Your task to perform on an android device: Search for a tv stand on Ikea Image 0: 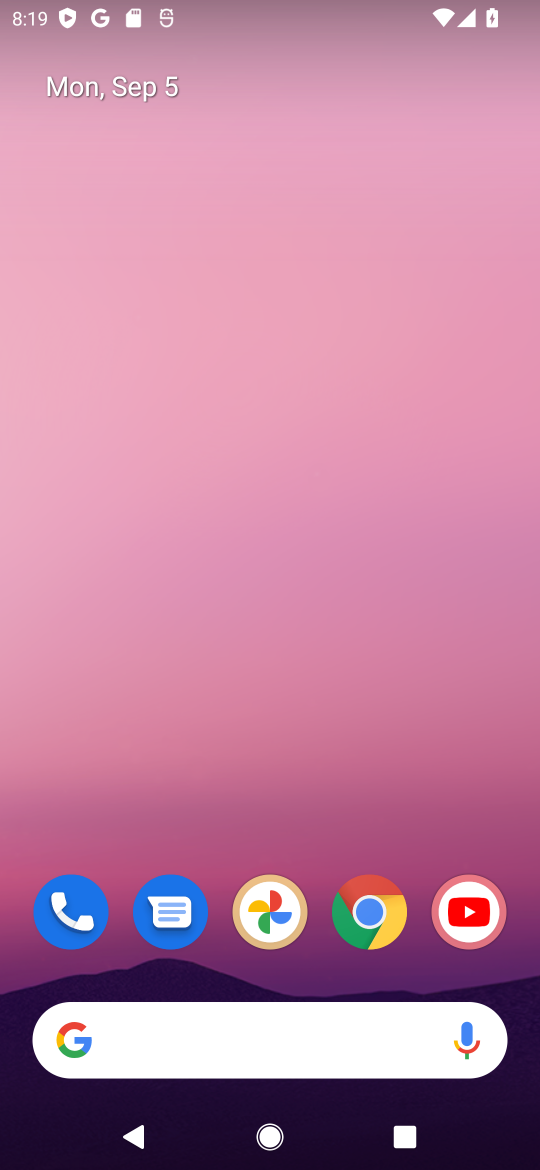
Step 0: click (361, 923)
Your task to perform on an android device: Search for a tv stand on Ikea Image 1: 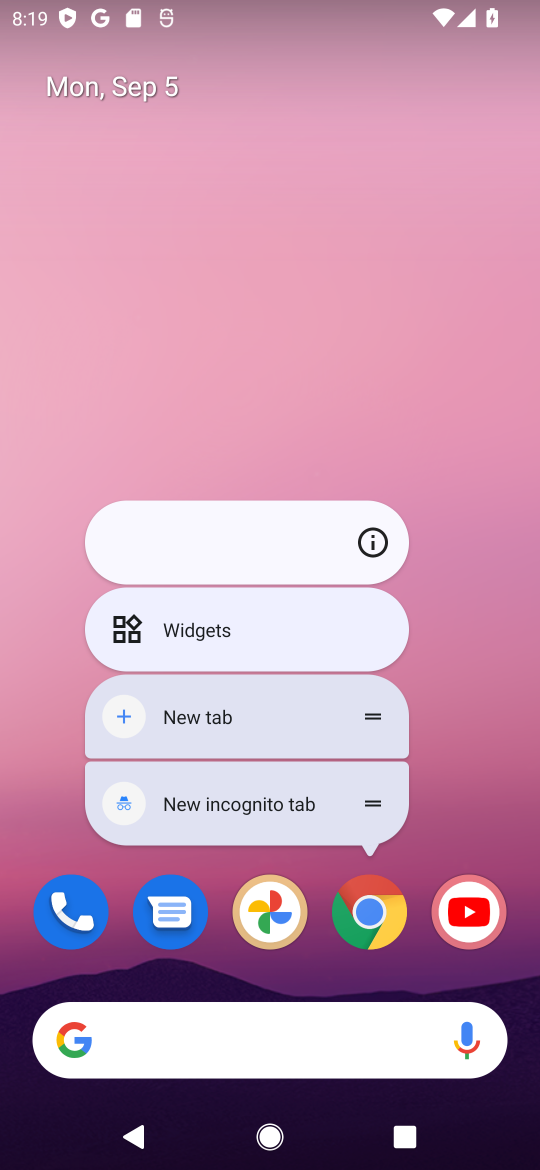
Step 1: click (371, 893)
Your task to perform on an android device: Search for a tv stand on Ikea Image 2: 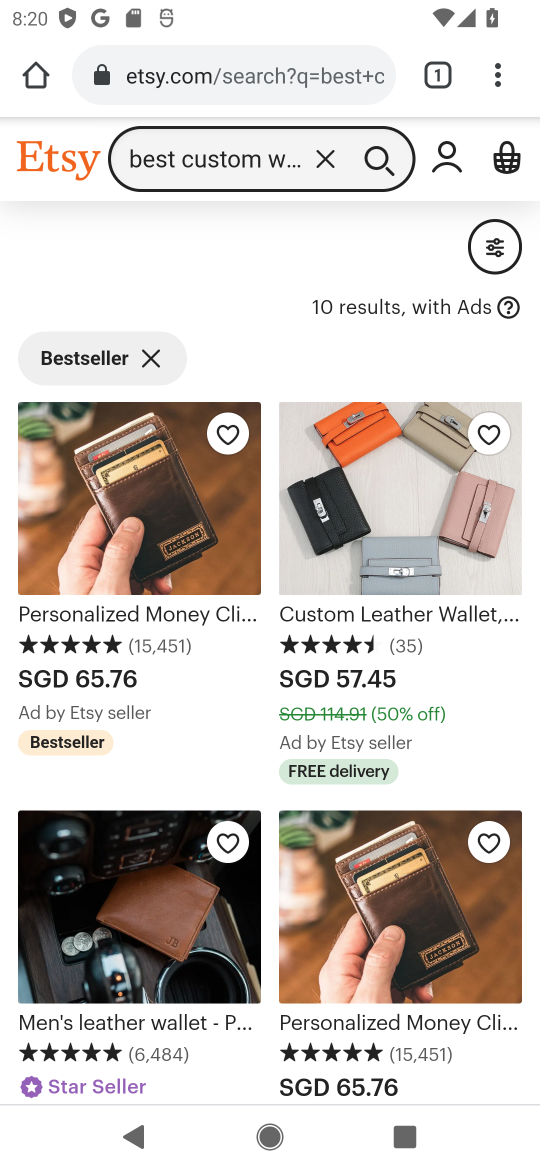
Step 2: click (285, 79)
Your task to perform on an android device: Search for a tv stand on Ikea Image 3: 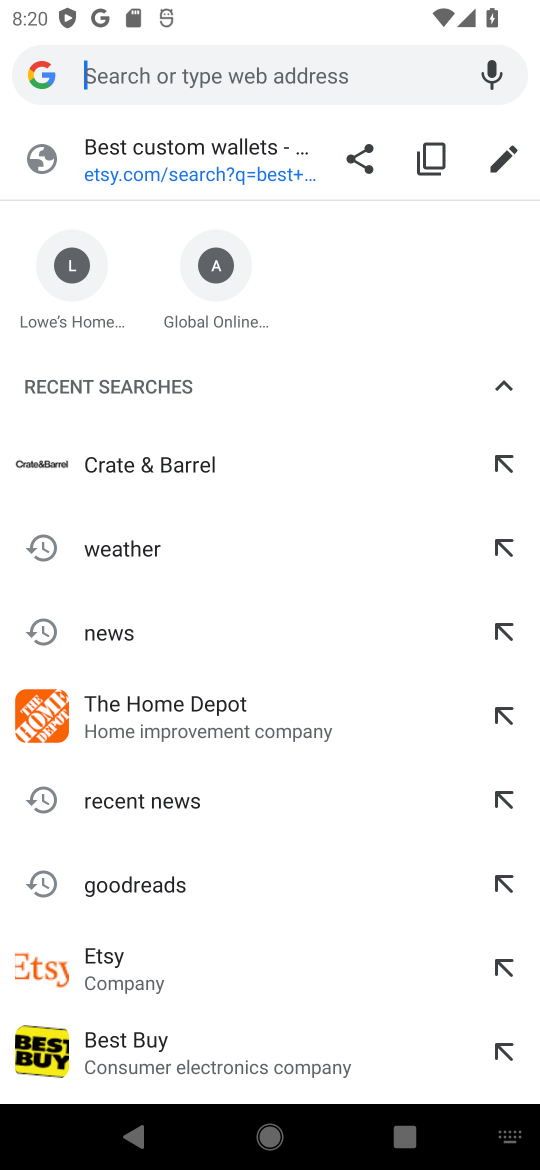
Step 3: type "ikea"
Your task to perform on an android device: Search for a tv stand on Ikea Image 4: 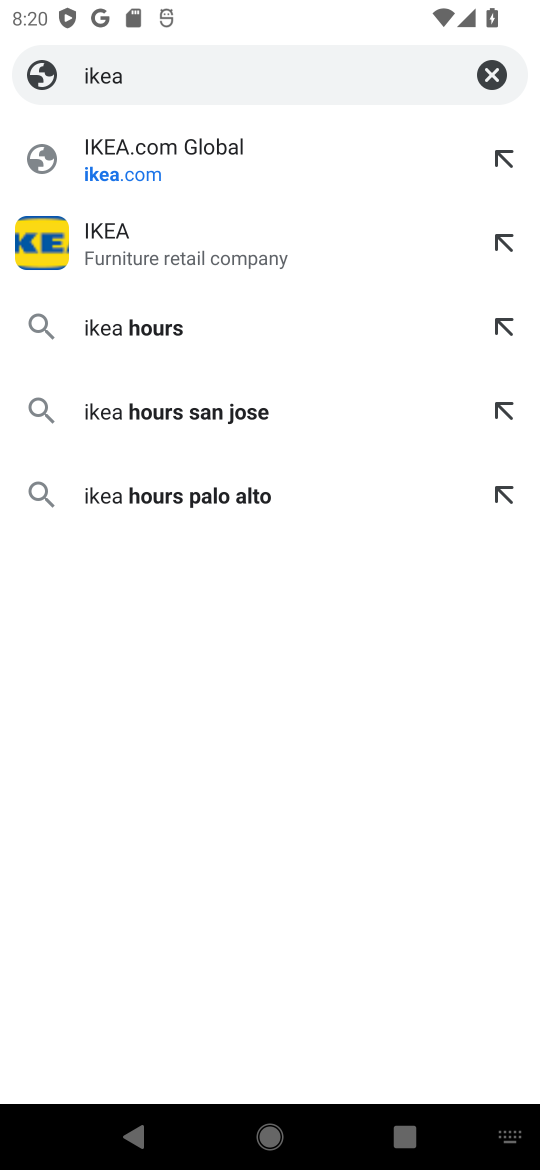
Step 4: press enter
Your task to perform on an android device: Search for a tv stand on Ikea Image 5: 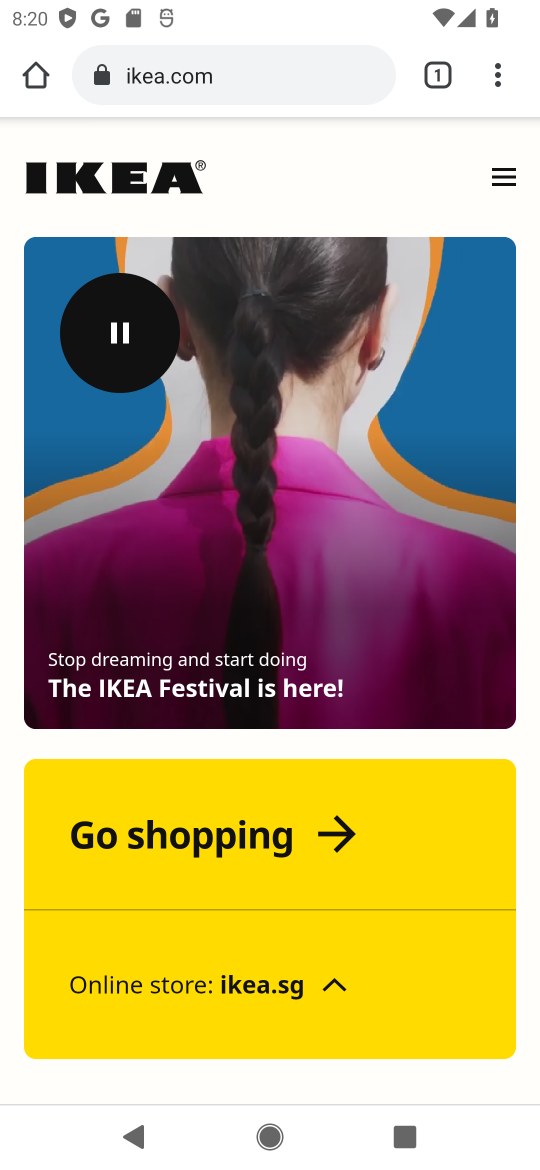
Step 5: click (284, 845)
Your task to perform on an android device: Search for a tv stand on Ikea Image 6: 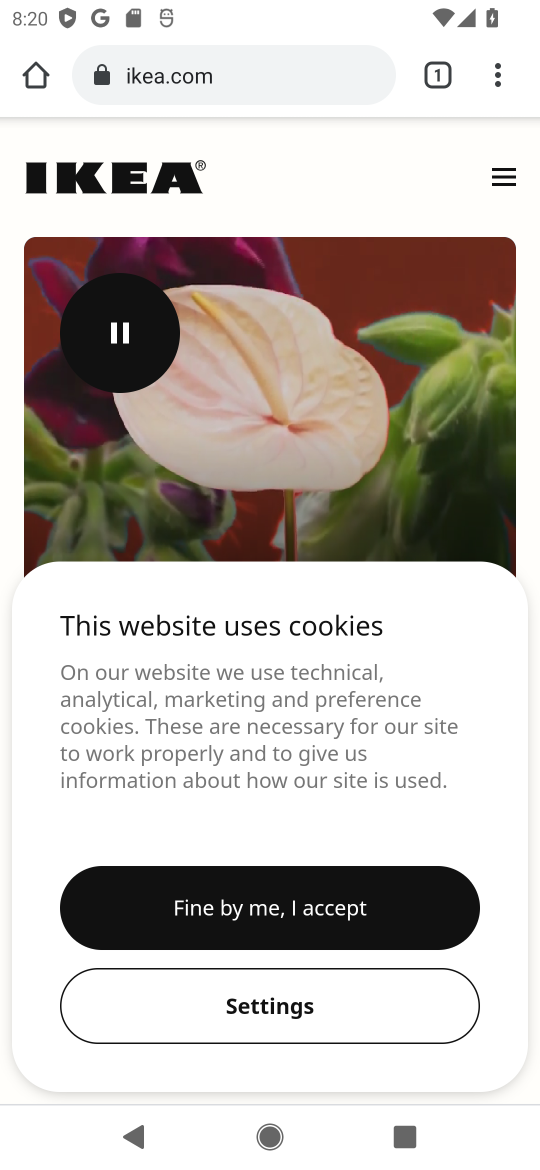
Step 6: click (284, 845)
Your task to perform on an android device: Search for a tv stand on Ikea Image 7: 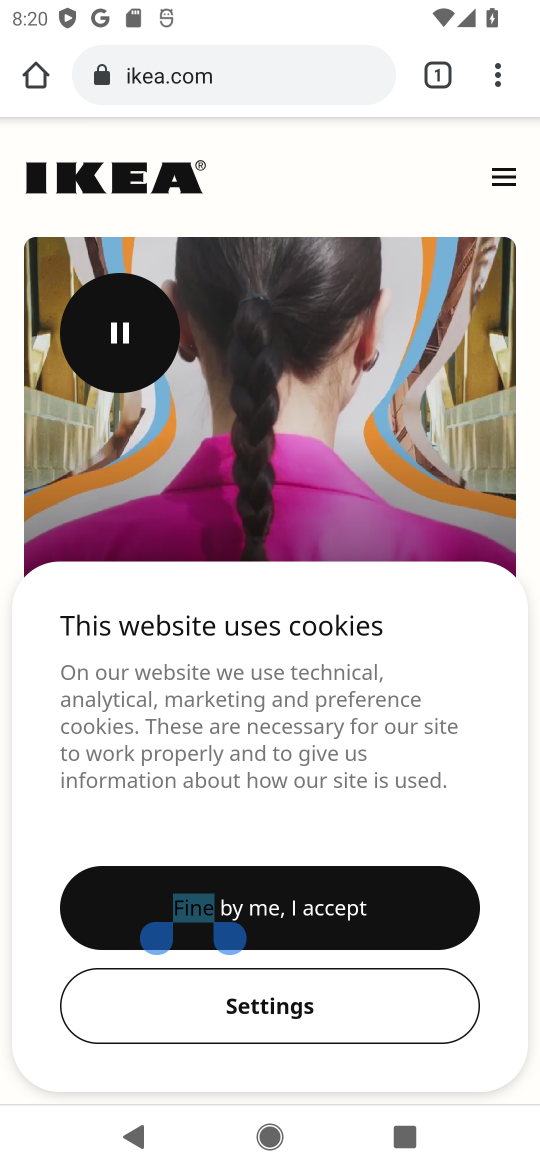
Step 7: click (277, 902)
Your task to perform on an android device: Search for a tv stand on Ikea Image 8: 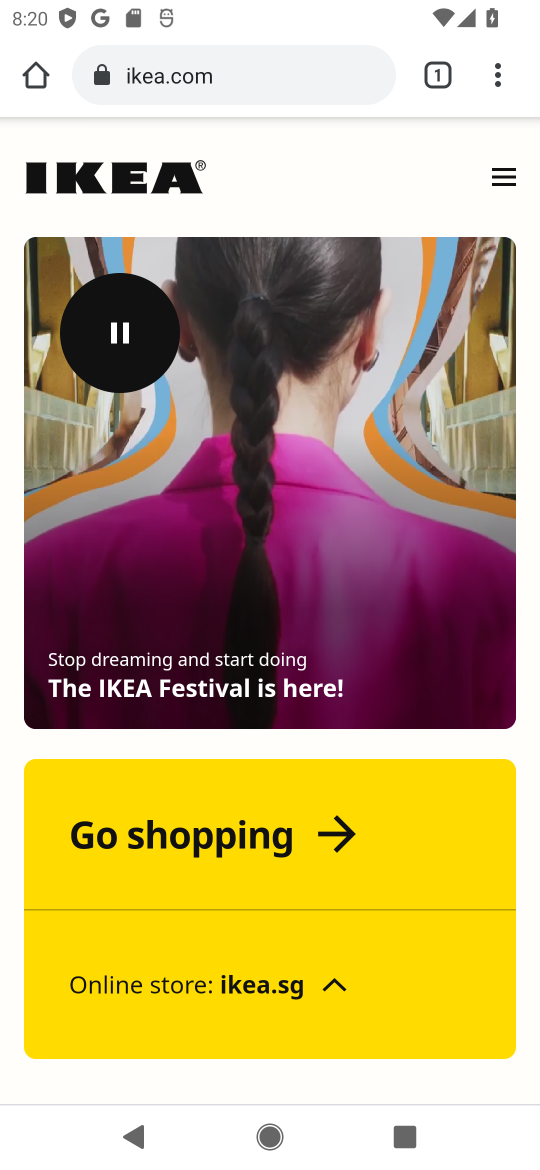
Step 8: click (285, 857)
Your task to perform on an android device: Search for a tv stand on Ikea Image 9: 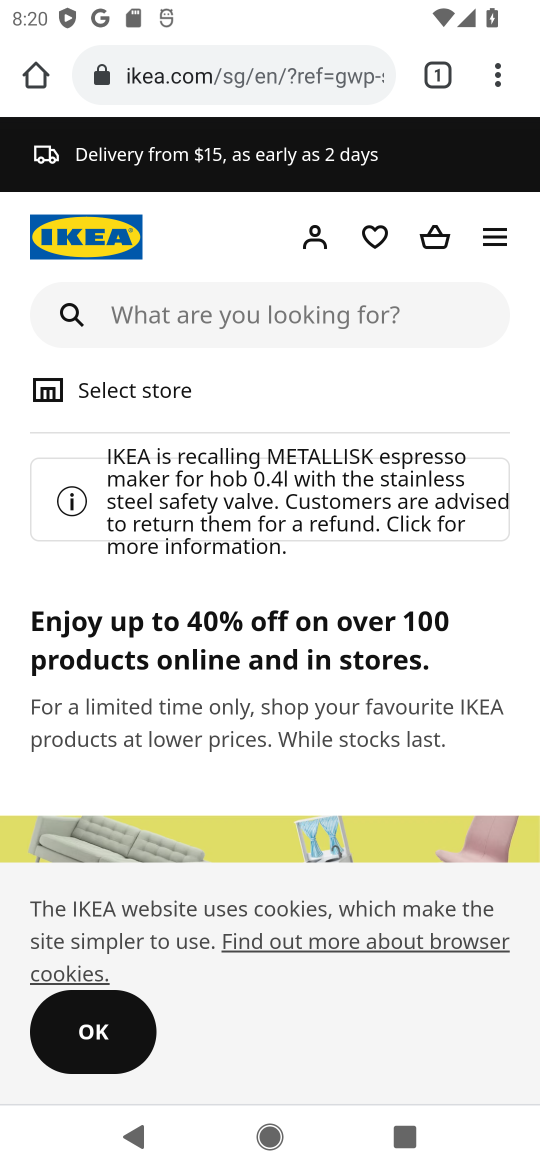
Step 9: click (241, 335)
Your task to perform on an android device: Search for a tv stand on Ikea Image 10: 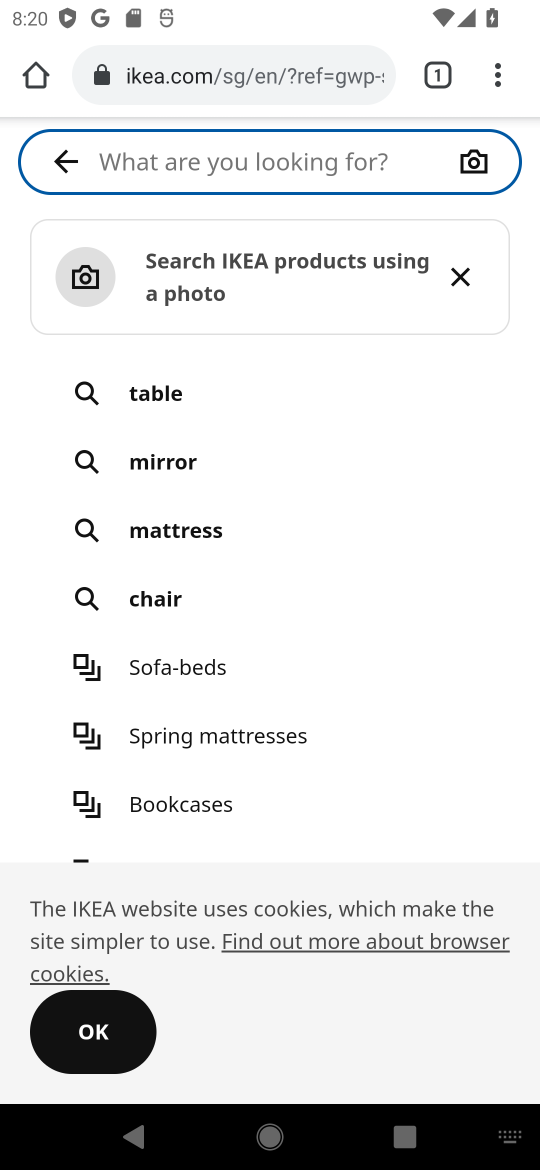
Step 10: type "tv stand"
Your task to perform on an android device: Search for a tv stand on Ikea Image 11: 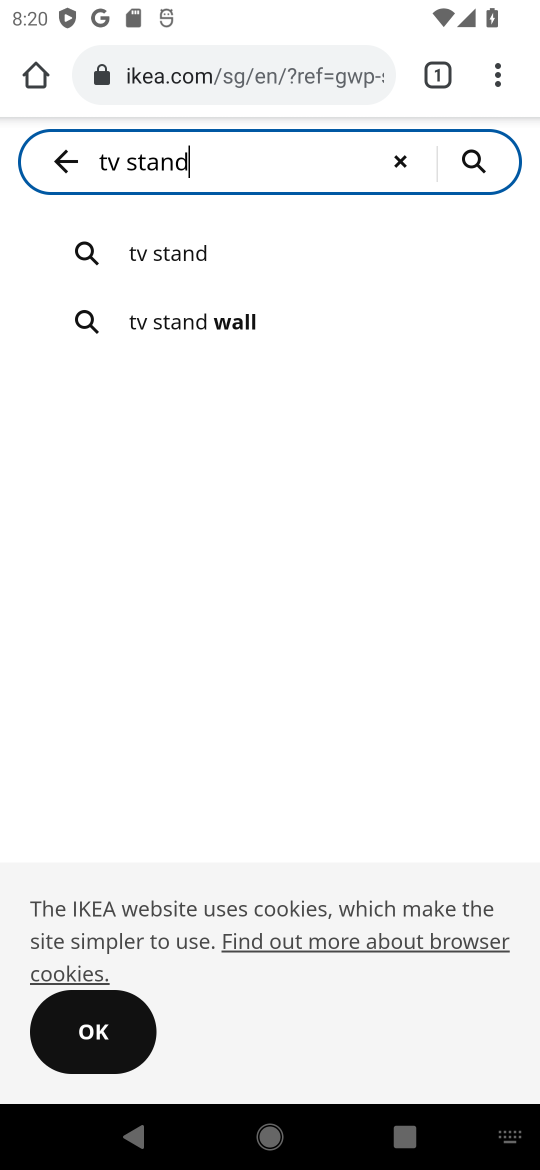
Step 11: press enter
Your task to perform on an android device: Search for a tv stand on Ikea Image 12: 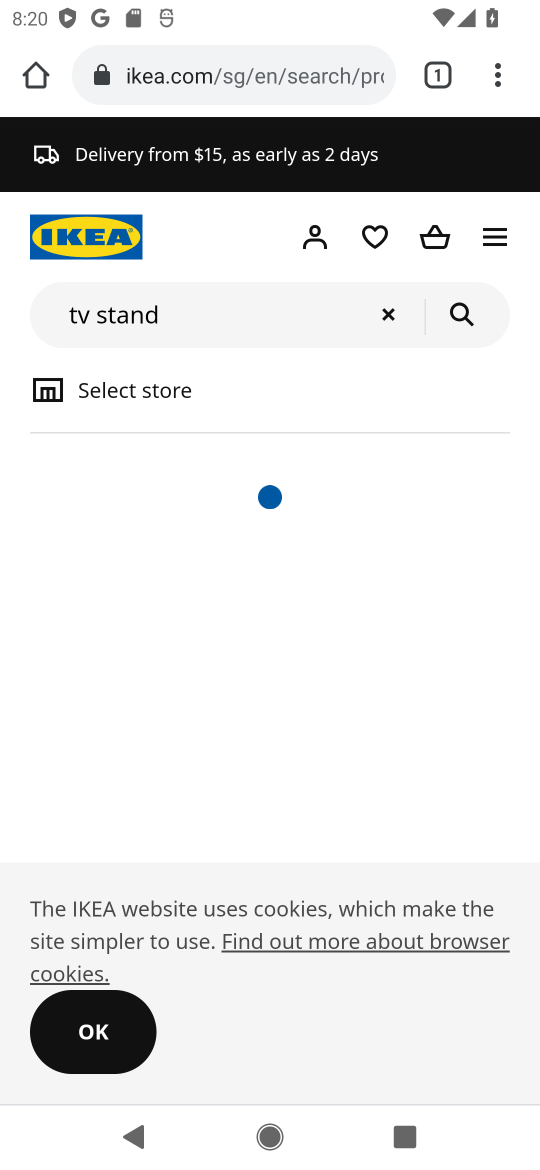
Step 12: click (124, 1022)
Your task to perform on an android device: Search for a tv stand on Ikea Image 13: 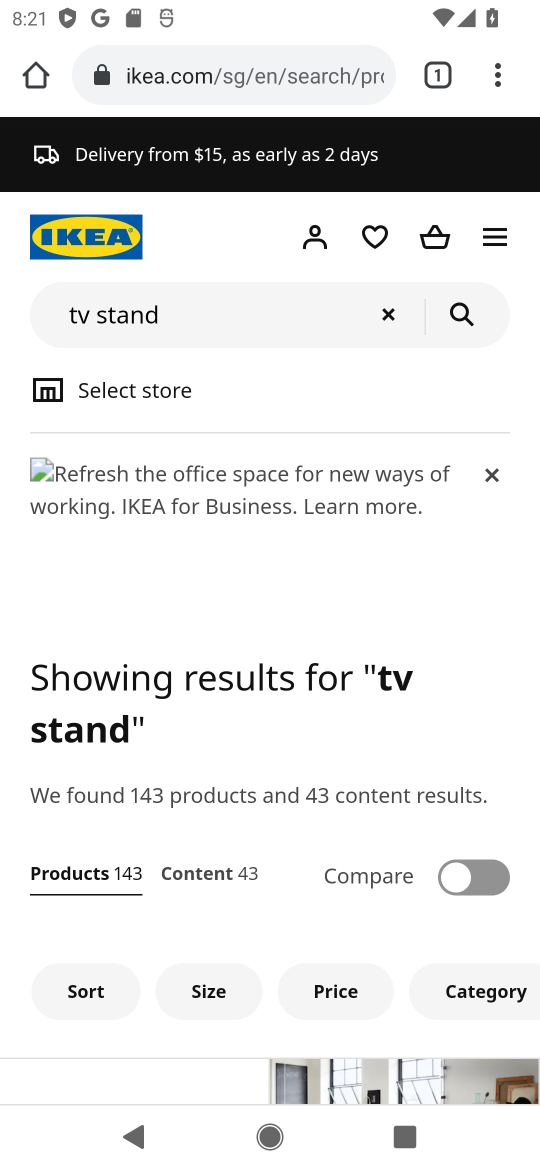
Step 13: drag from (182, 877) to (220, 517)
Your task to perform on an android device: Search for a tv stand on Ikea Image 14: 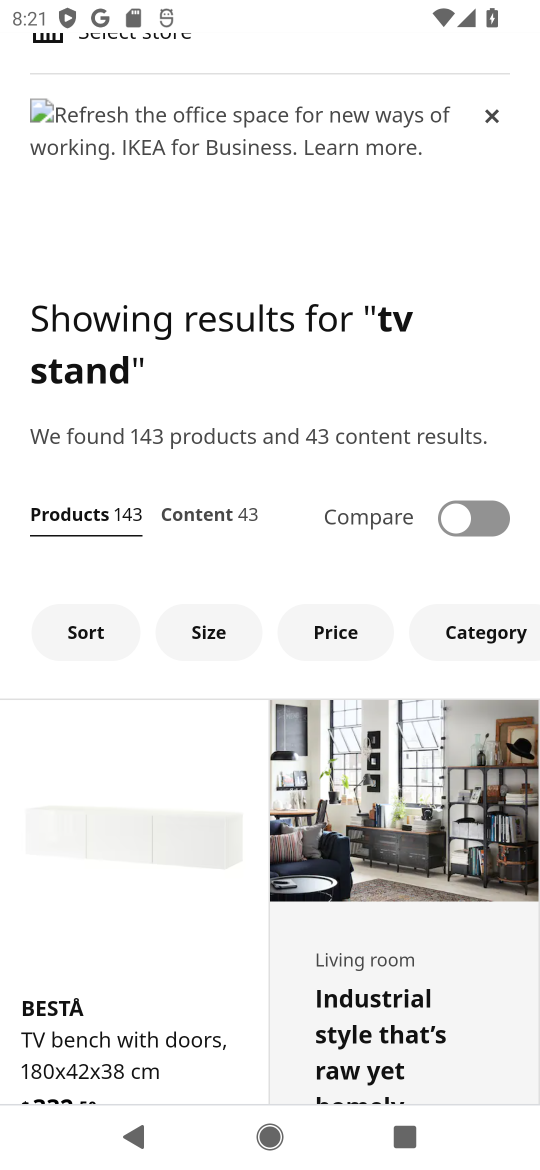
Step 14: drag from (347, 993) to (355, 433)
Your task to perform on an android device: Search for a tv stand on Ikea Image 15: 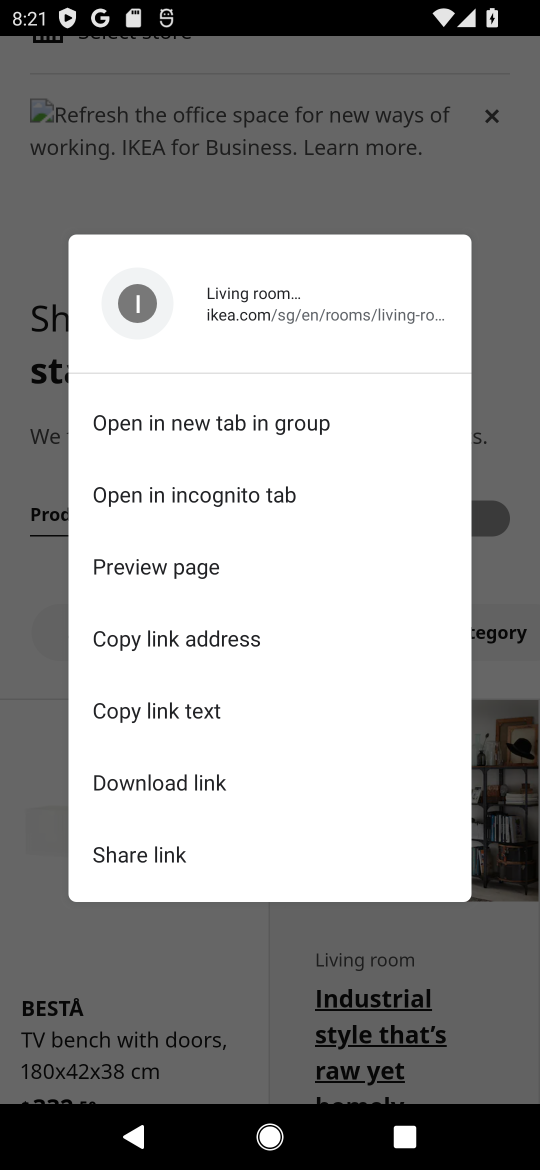
Step 15: click (506, 567)
Your task to perform on an android device: Search for a tv stand on Ikea Image 16: 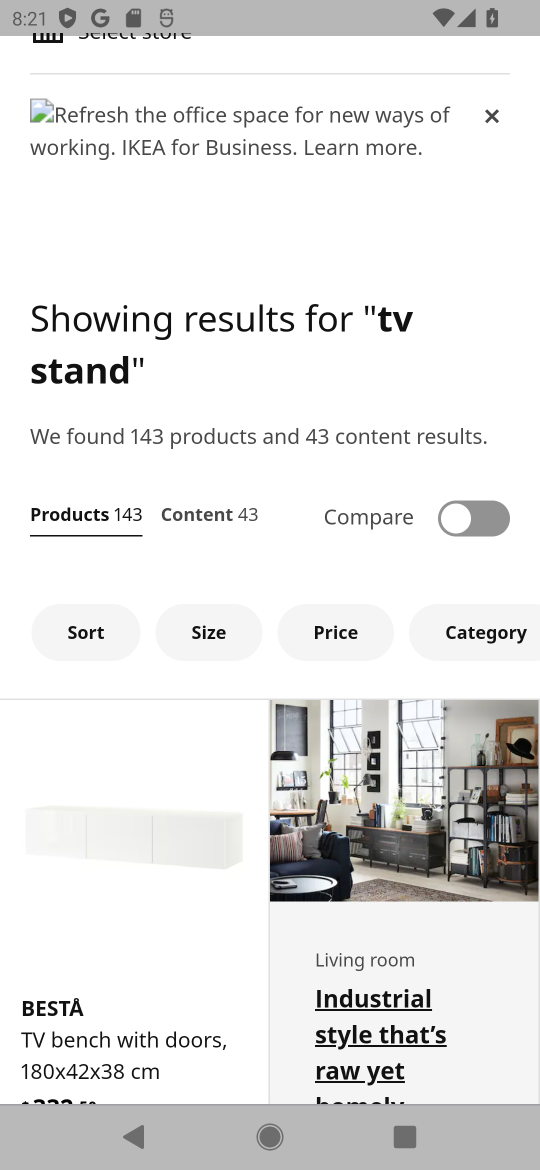
Step 16: task complete